Your task to perform on an android device: turn on sleep mode Image 0: 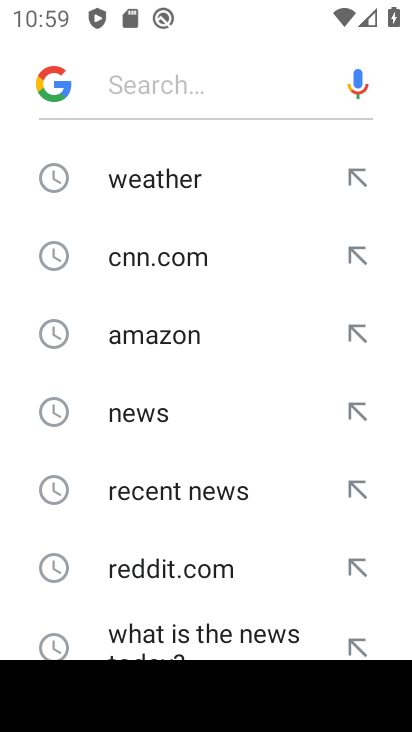
Step 0: press home button
Your task to perform on an android device: turn on sleep mode Image 1: 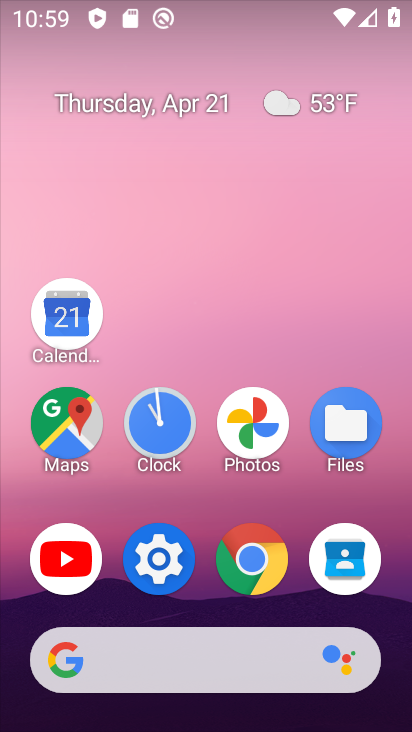
Step 1: click (158, 556)
Your task to perform on an android device: turn on sleep mode Image 2: 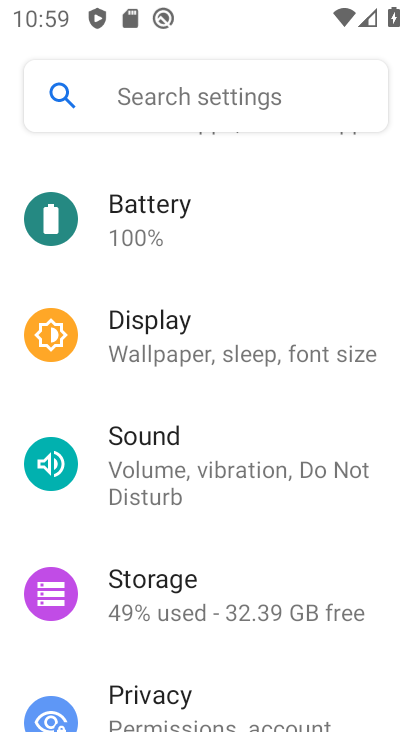
Step 2: click (154, 318)
Your task to perform on an android device: turn on sleep mode Image 3: 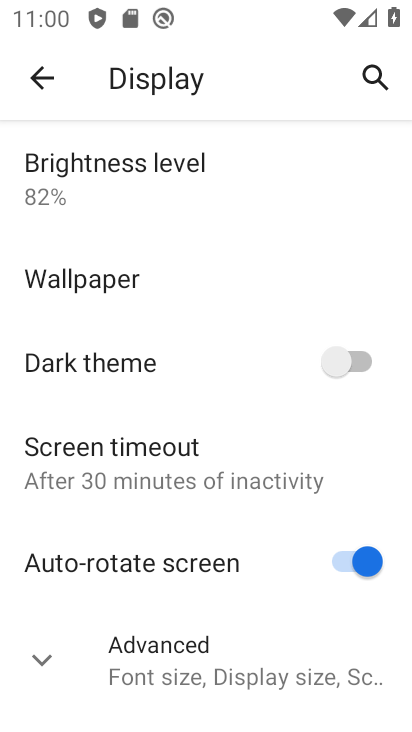
Step 3: click (112, 657)
Your task to perform on an android device: turn on sleep mode Image 4: 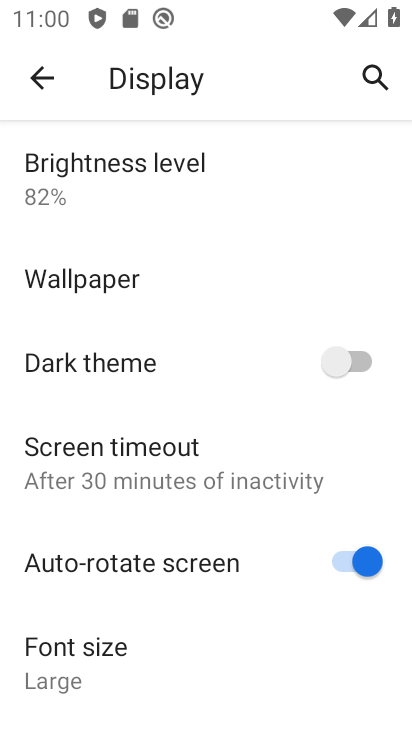
Step 4: task complete